Your task to perform on an android device: Open Chrome and go to settings Image 0: 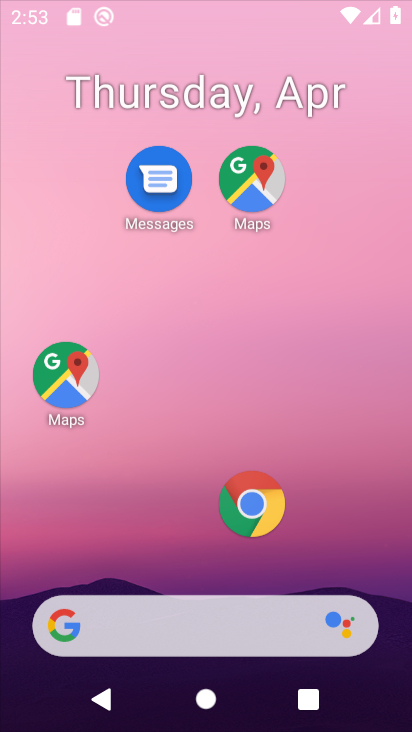
Step 0: click (340, 360)
Your task to perform on an android device: Open Chrome and go to settings Image 1: 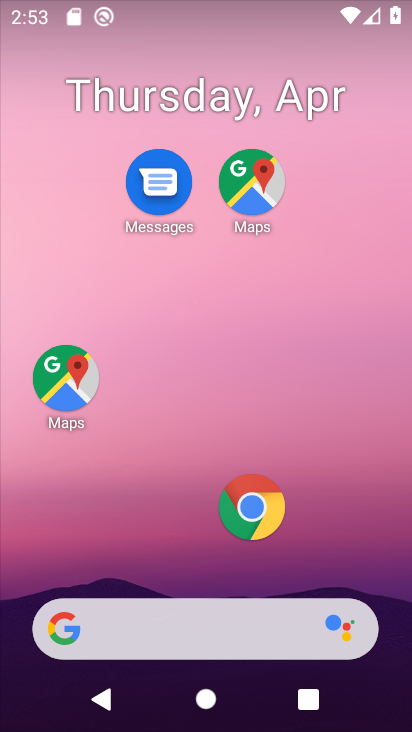
Step 1: click (259, 514)
Your task to perform on an android device: Open Chrome and go to settings Image 2: 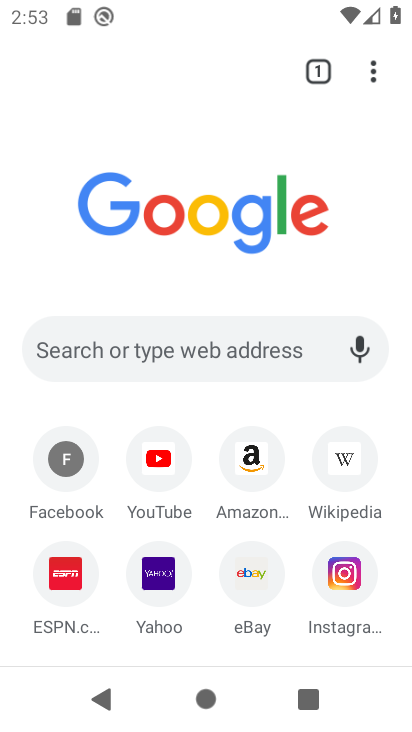
Step 2: click (378, 74)
Your task to perform on an android device: Open Chrome and go to settings Image 3: 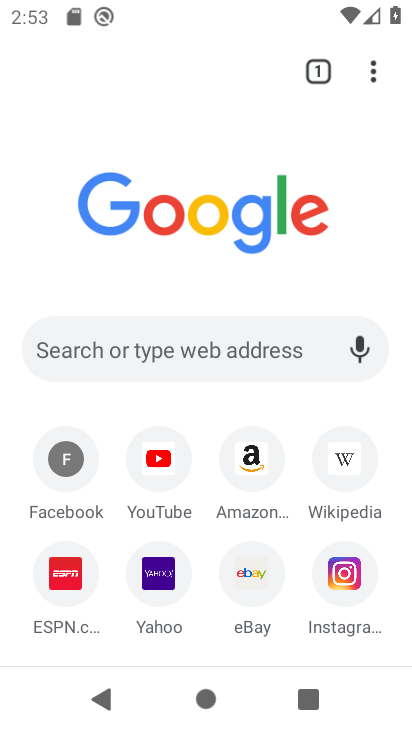
Step 3: click (378, 74)
Your task to perform on an android device: Open Chrome and go to settings Image 4: 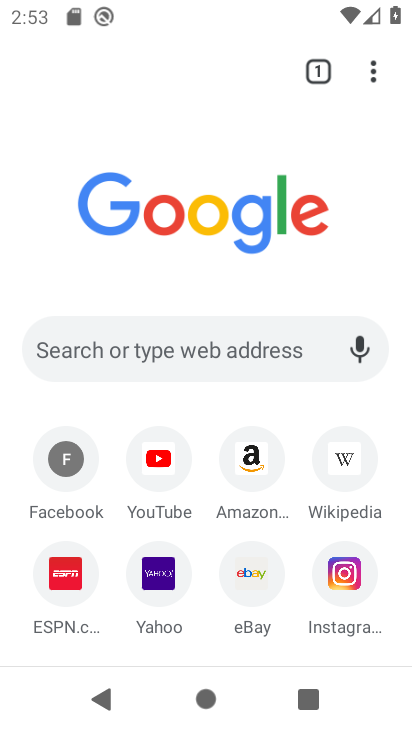
Step 4: click (369, 82)
Your task to perform on an android device: Open Chrome and go to settings Image 5: 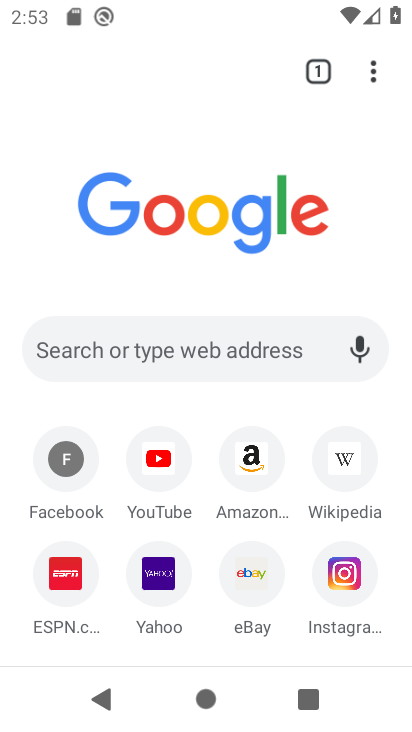
Step 5: click (370, 83)
Your task to perform on an android device: Open Chrome and go to settings Image 6: 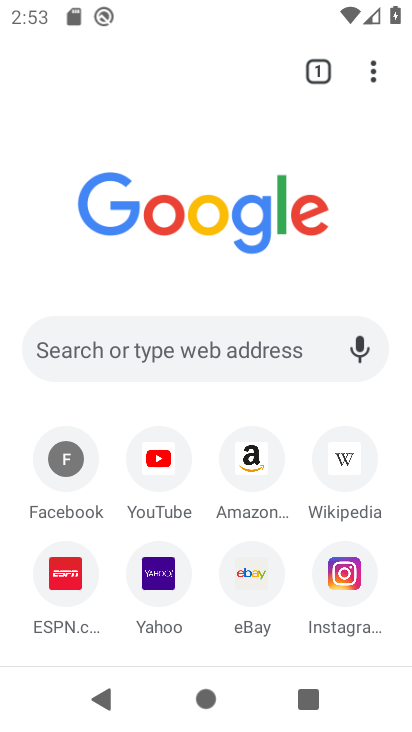
Step 6: click (359, 70)
Your task to perform on an android device: Open Chrome and go to settings Image 7: 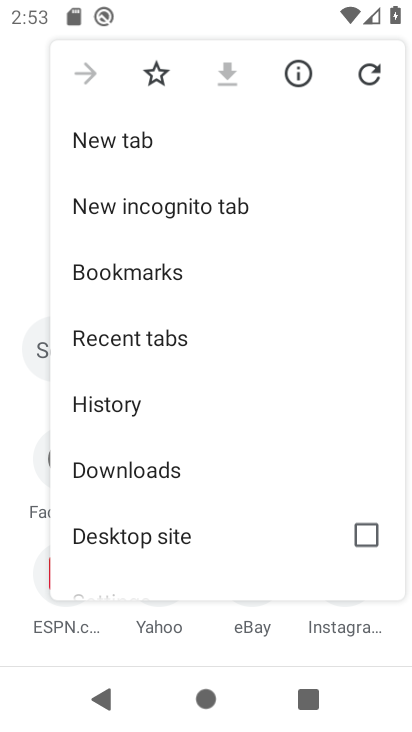
Step 7: drag from (178, 403) to (186, 205)
Your task to perform on an android device: Open Chrome and go to settings Image 8: 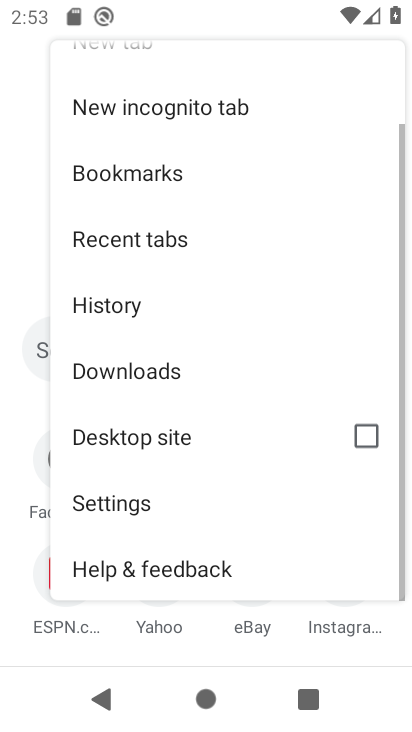
Step 8: click (98, 508)
Your task to perform on an android device: Open Chrome and go to settings Image 9: 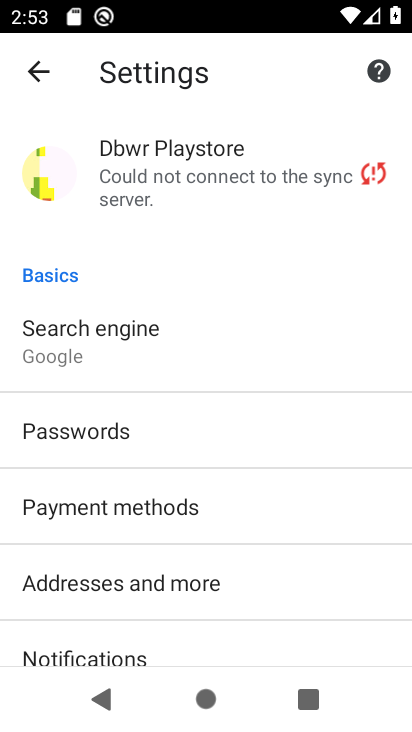
Step 9: task complete